Your task to perform on an android device: turn on showing notifications on the lock screen Image 0: 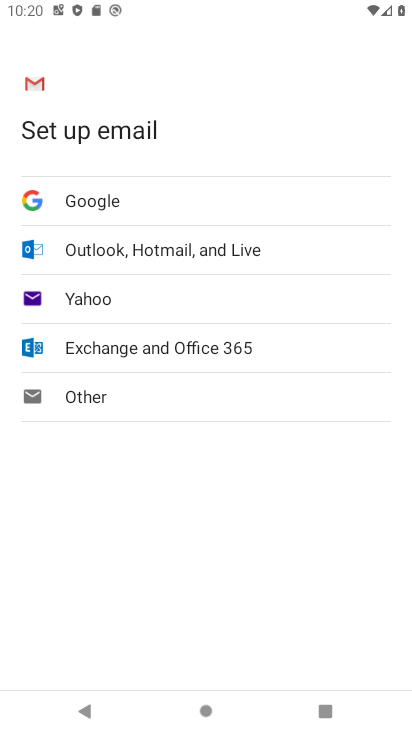
Step 0: press home button
Your task to perform on an android device: turn on showing notifications on the lock screen Image 1: 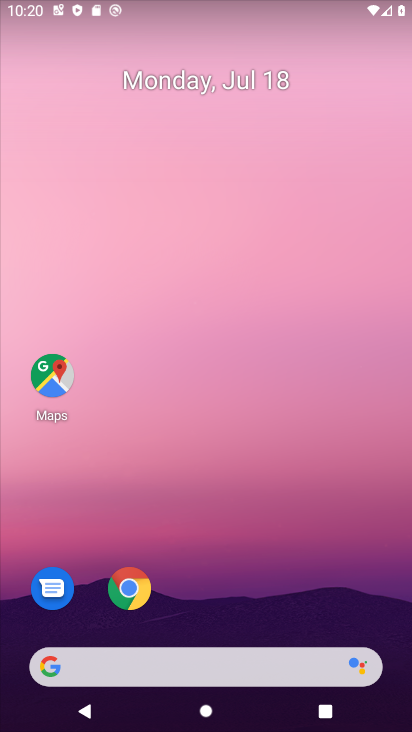
Step 1: drag from (236, 665) to (212, 170)
Your task to perform on an android device: turn on showing notifications on the lock screen Image 2: 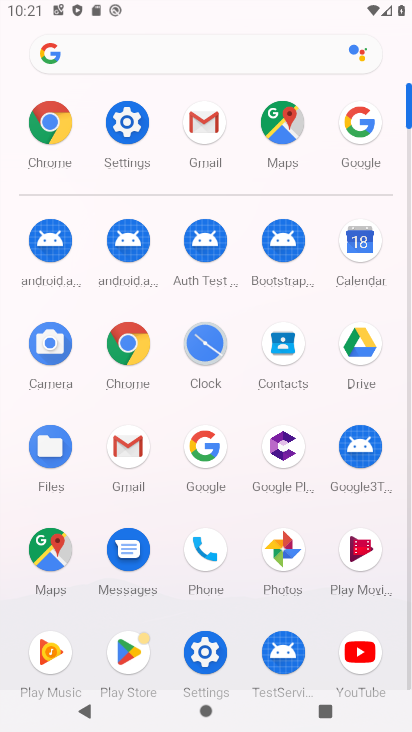
Step 2: click (126, 119)
Your task to perform on an android device: turn on showing notifications on the lock screen Image 3: 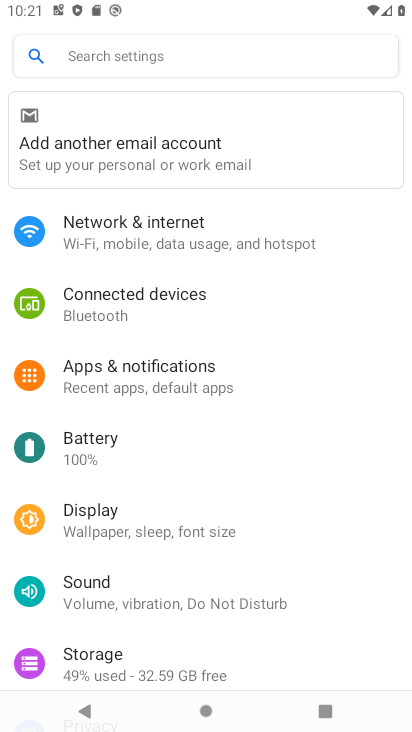
Step 3: click (91, 375)
Your task to perform on an android device: turn on showing notifications on the lock screen Image 4: 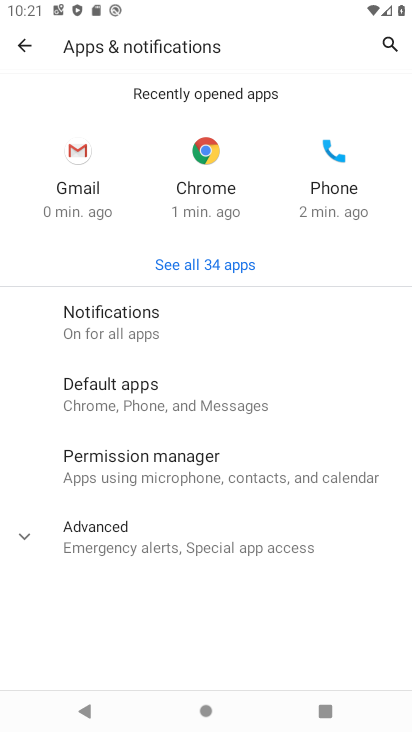
Step 4: click (118, 314)
Your task to perform on an android device: turn on showing notifications on the lock screen Image 5: 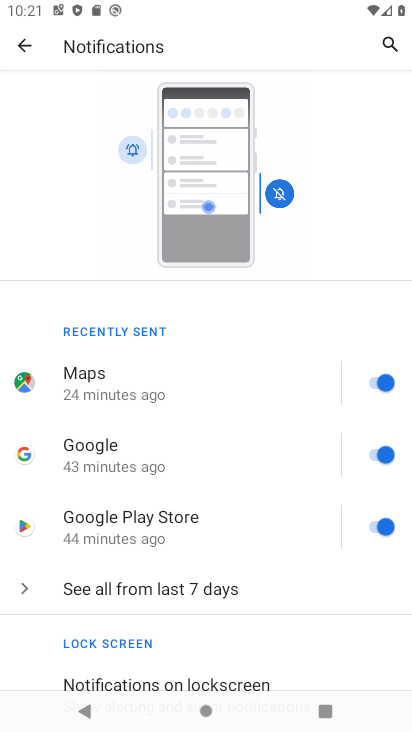
Step 5: task complete